Your task to perform on an android device: Go to Wikipedia Image 0: 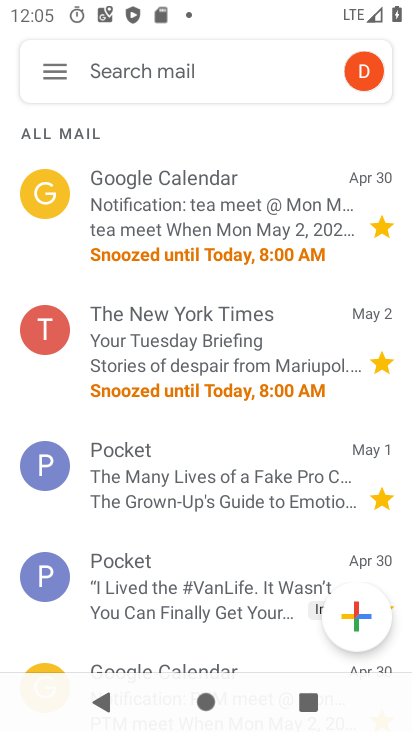
Step 0: press home button
Your task to perform on an android device: Go to Wikipedia Image 1: 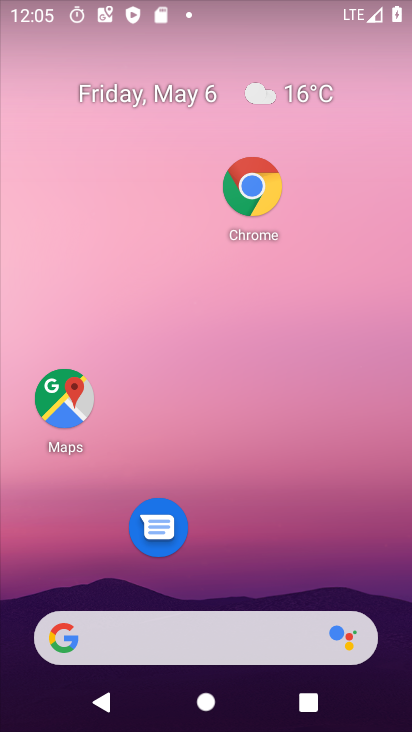
Step 1: drag from (312, 577) to (402, 113)
Your task to perform on an android device: Go to Wikipedia Image 2: 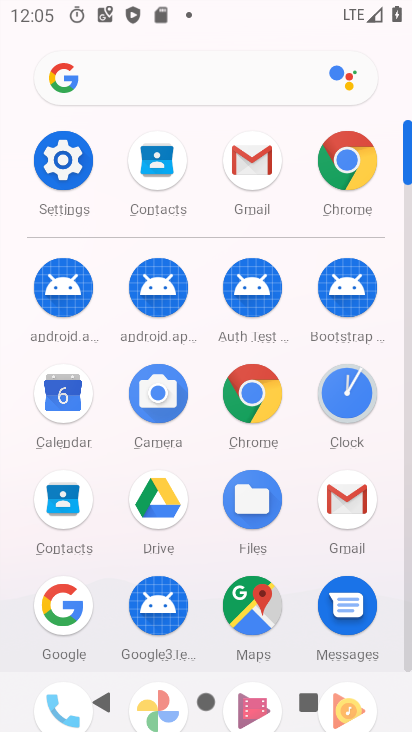
Step 2: click (362, 174)
Your task to perform on an android device: Go to Wikipedia Image 3: 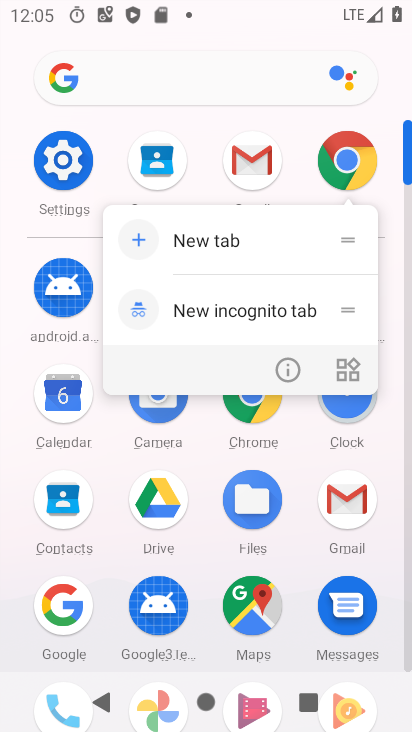
Step 3: click (356, 178)
Your task to perform on an android device: Go to Wikipedia Image 4: 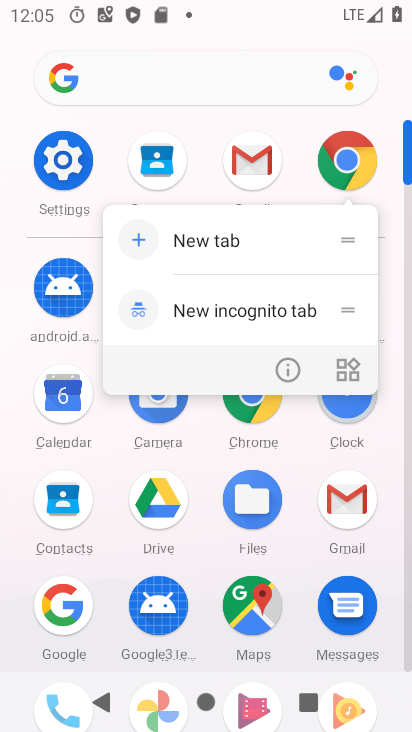
Step 4: click (351, 183)
Your task to perform on an android device: Go to Wikipedia Image 5: 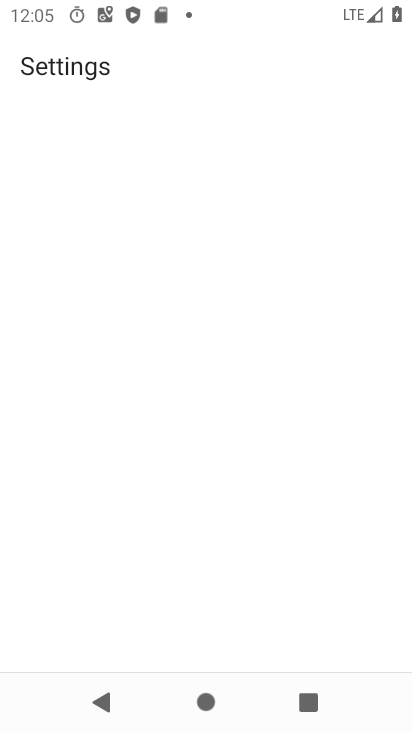
Step 5: click (350, 182)
Your task to perform on an android device: Go to Wikipedia Image 6: 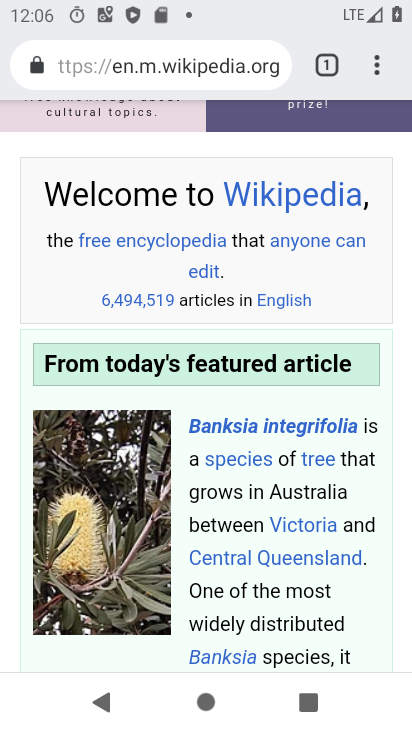
Step 6: task complete